Your task to perform on an android device: open app "ColorNote Notepad Notes" (install if not already installed) Image 0: 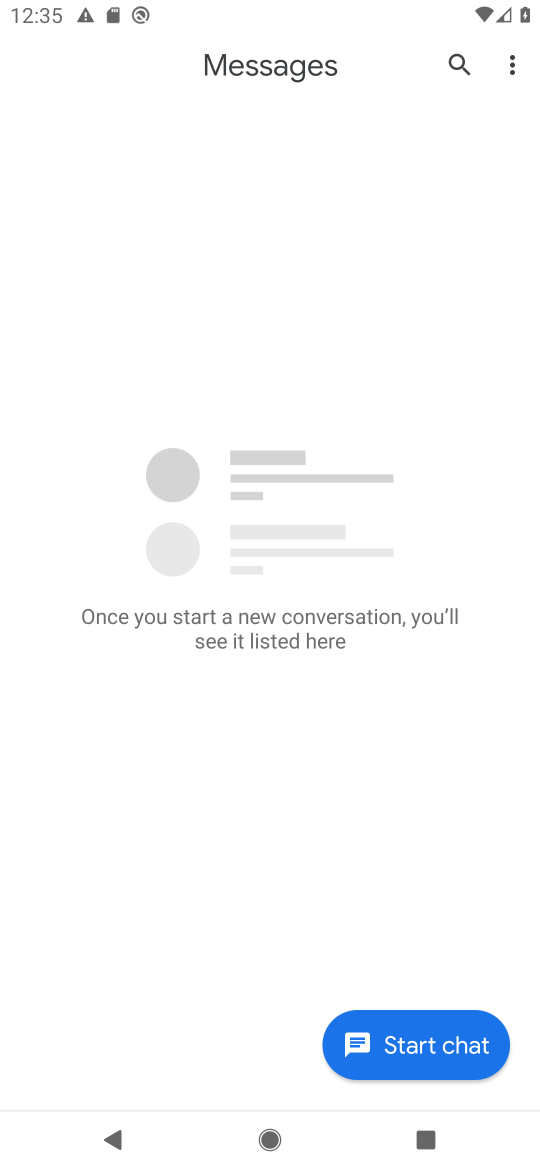
Step 0: press home button
Your task to perform on an android device: open app "ColorNote Notepad Notes" (install if not already installed) Image 1: 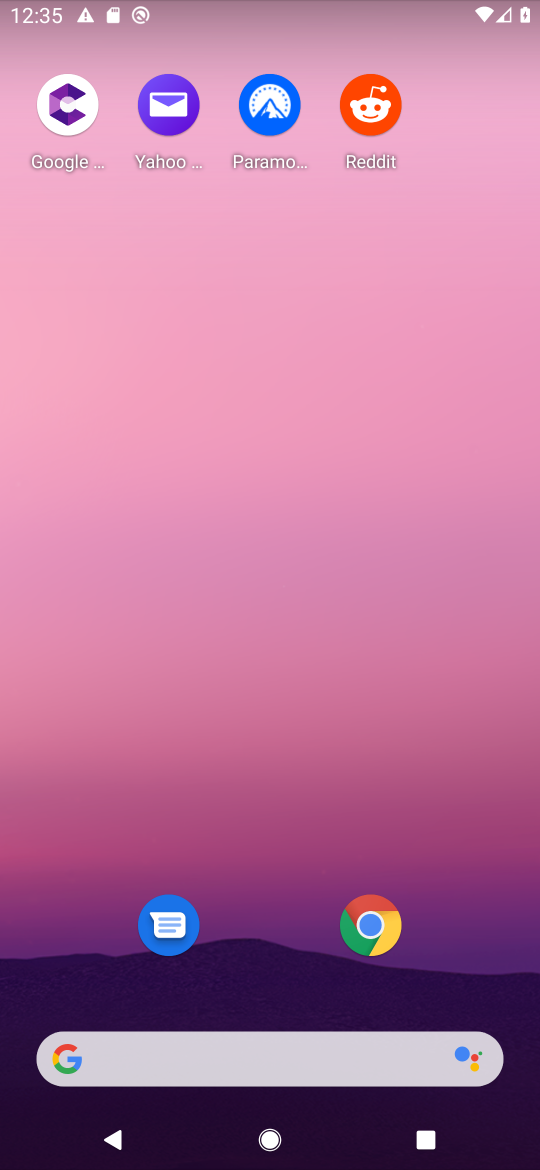
Step 1: drag from (254, 858) to (291, 145)
Your task to perform on an android device: open app "ColorNote Notepad Notes" (install if not already installed) Image 2: 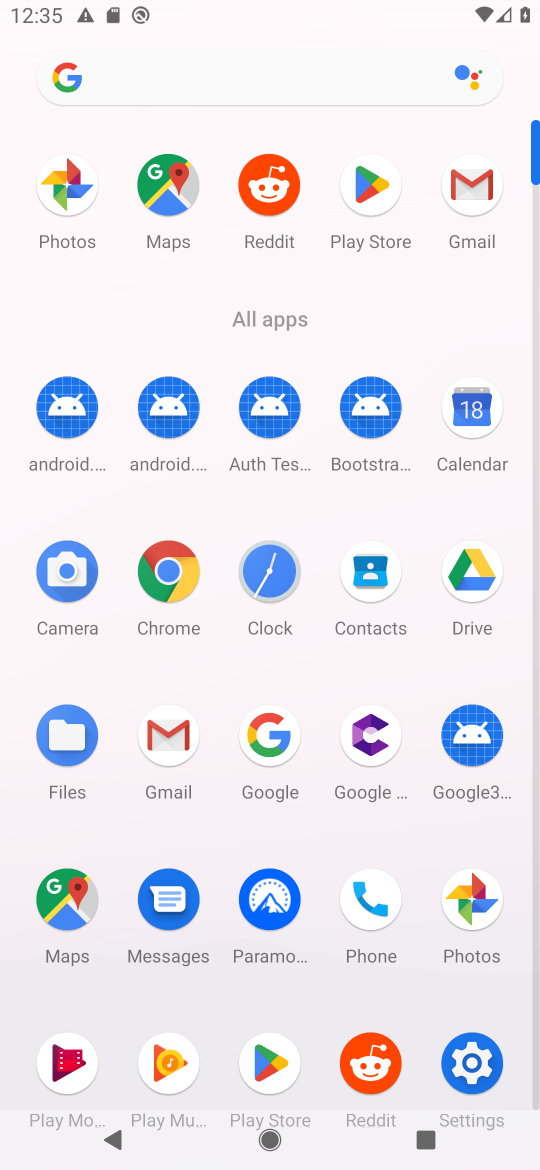
Step 2: click (376, 208)
Your task to perform on an android device: open app "ColorNote Notepad Notes" (install if not already installed) Image 3: 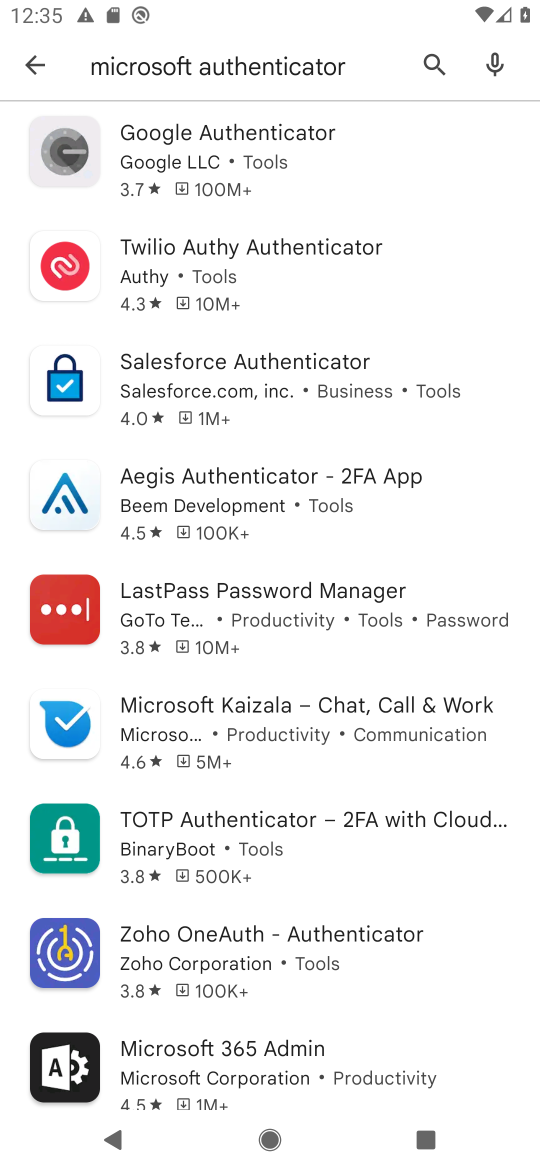
Step 3: click (30, 62)
Your task to perform on an android device: open app "ColorNote Notepad Notes" (install if not already installed) Image 4: 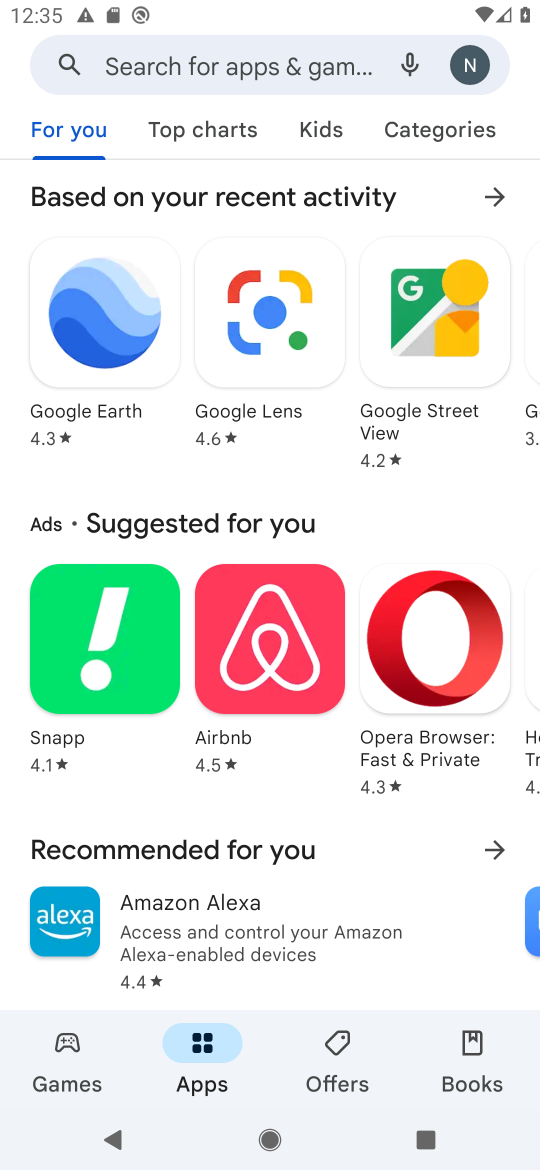
Step 4: click (275, 46)
Your task to perform on an android device: open app "ColorNote Notepad Notes" (install if not already installed) Image 5: 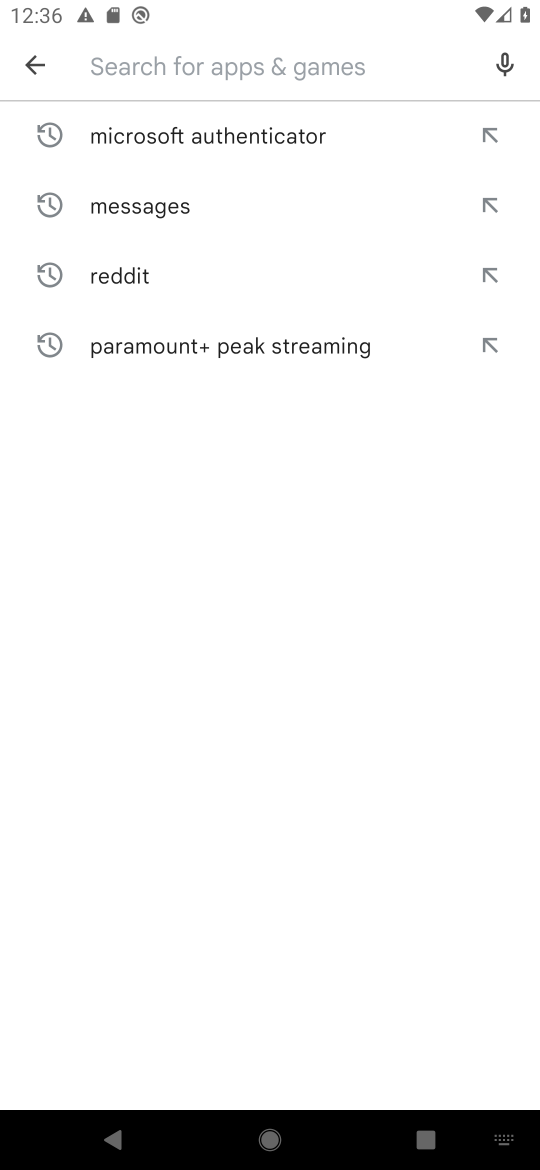
Step 5: type "ColorNote"
Your task to perform on an android device: open app "ColorNote Notepad Notes" (install if not already installed) Image 6: 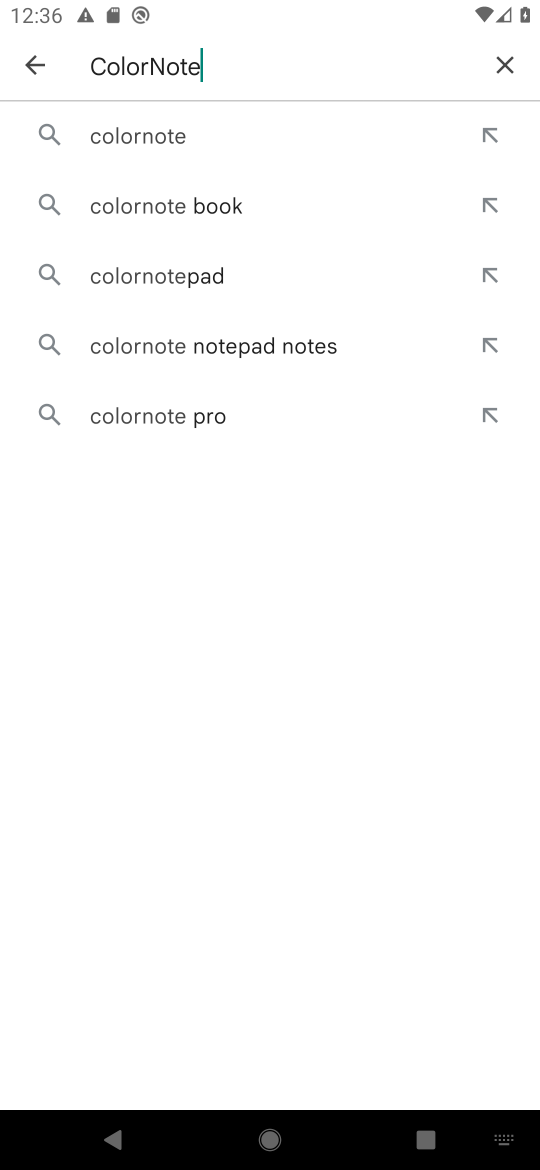
Step 6: click (166, 136)
Your task to perform on an android device: open app "ColorNote Notepad Notes" (install if not already installed) Image 7: 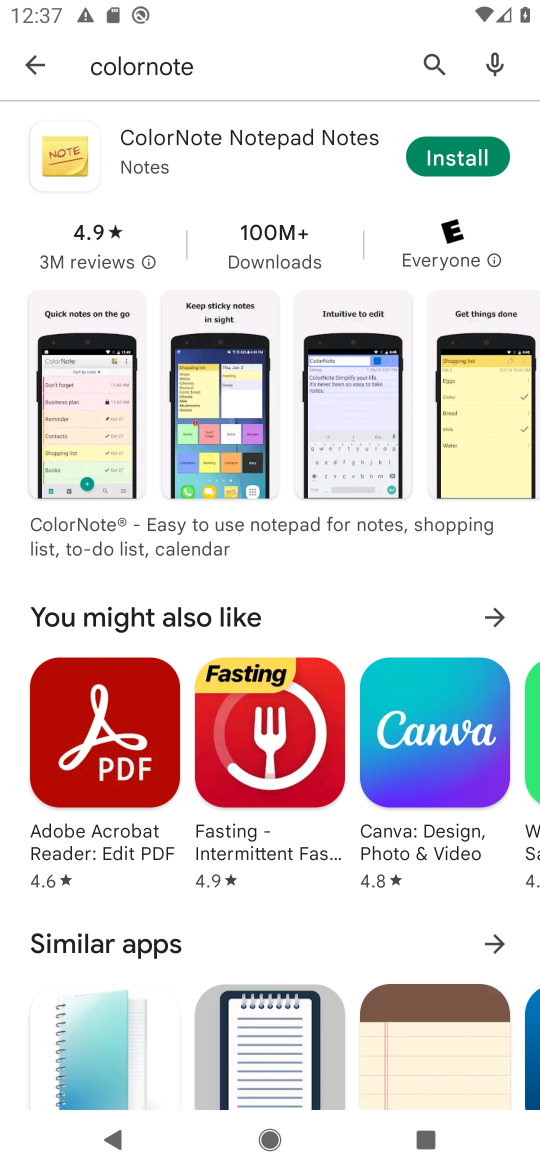
Step 7: click (440, 159)
Your task to perform on an android device: open app "ColorNote Notepad Notes" (install if not already installed) Image 8: 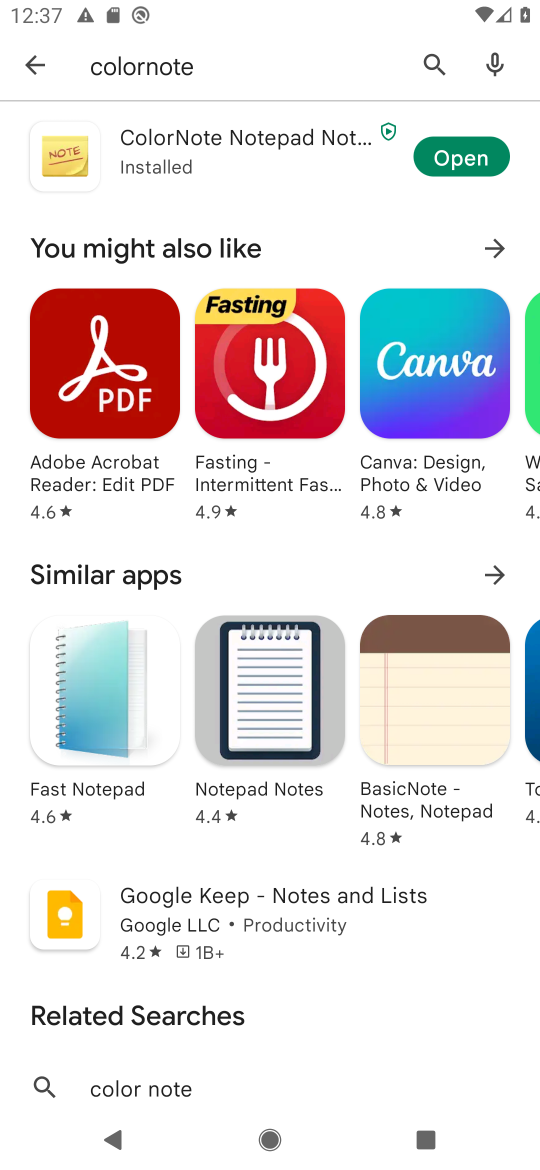
Step 8: click (440, 159)
Your task to perform on an android device: open app "ColorNote Notepad Notes" (install if not already installed) Image 9: 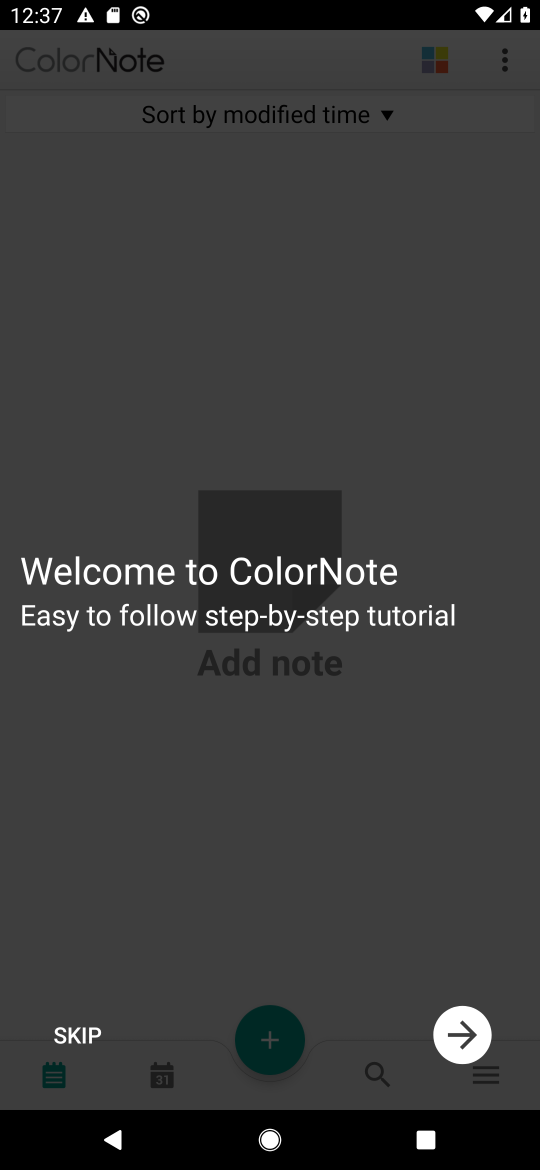
Step 9: task complete